Your task to perform on an android device: Open internet settings Image 0: 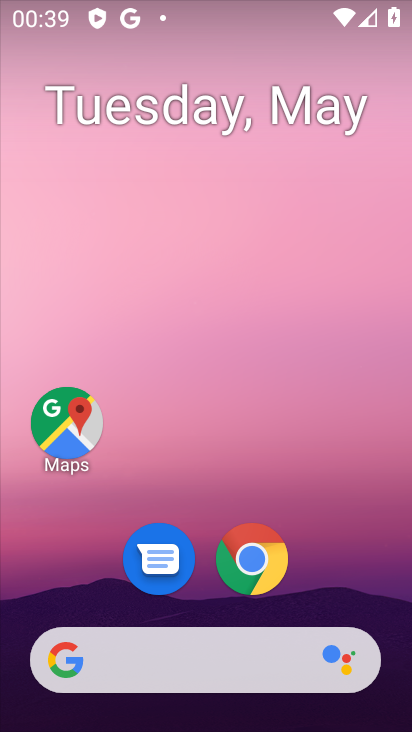
Step 0: drag from (312, 449) to (265, 19)
Your task to perform on an android device: Open internet settings Image 1: 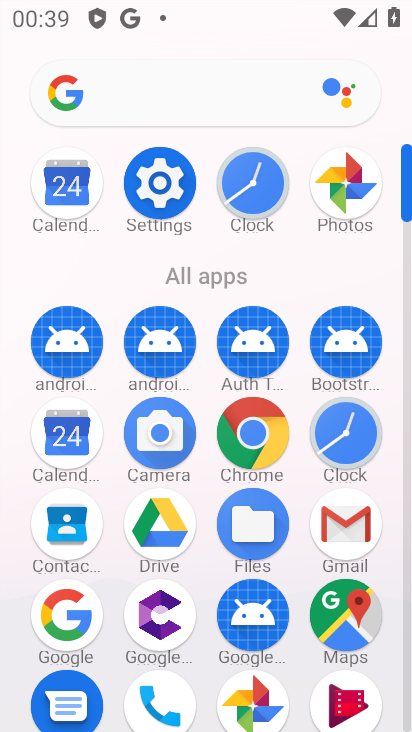
Step 1: click (164, 205)
Your task to perform on an android device: Open internet settings Image 2: 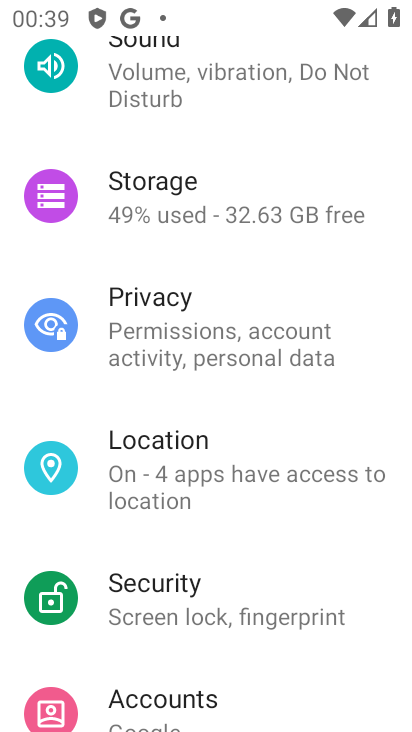
Step 2: drag from (220, 223) to (193, 626)
Your task to perform on an android device: Open internet settings Image 3: 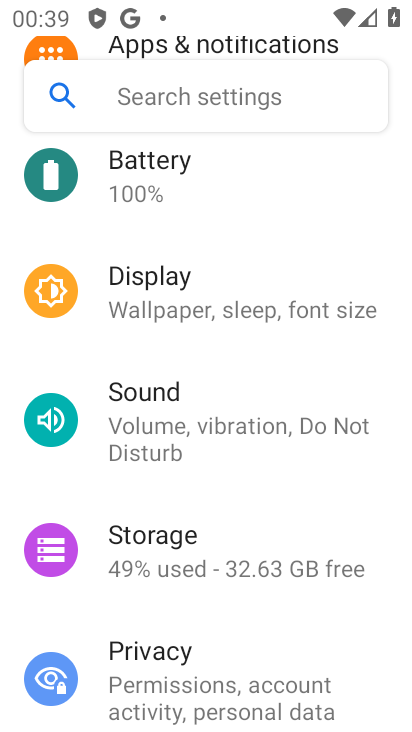
Step 3: drag from (175, 217) to (182, 603)
Your task to perform on an android device: Open internet settings Image 4: 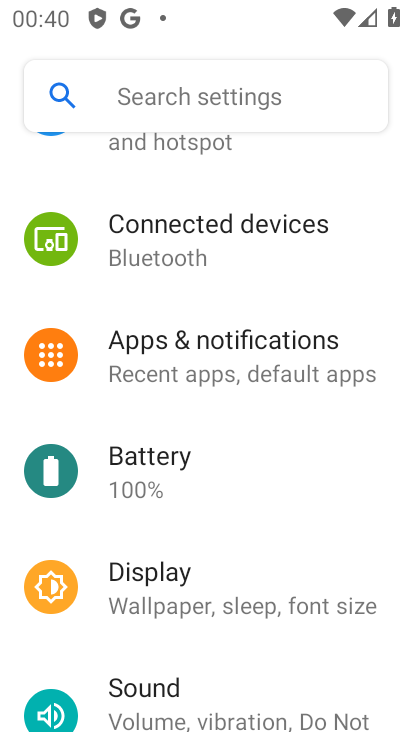
Step 4: drag from (172, 238) to (182, 679)
Your task to perform on an android device: Open internet settings Image 5: 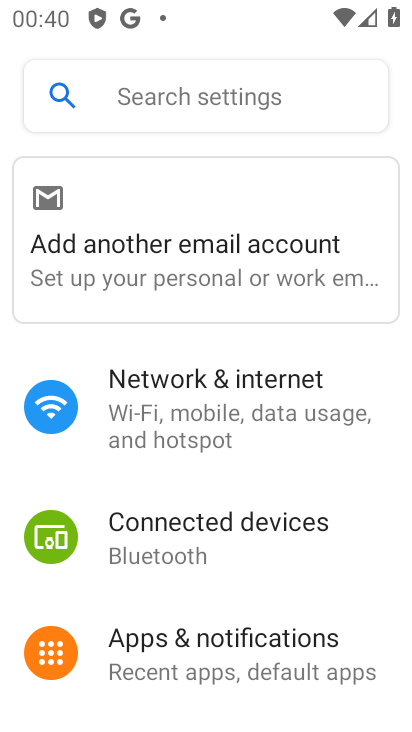
Step 5: click (207, 415)
Your task to perform on an android device: Open internet settings Image 6: 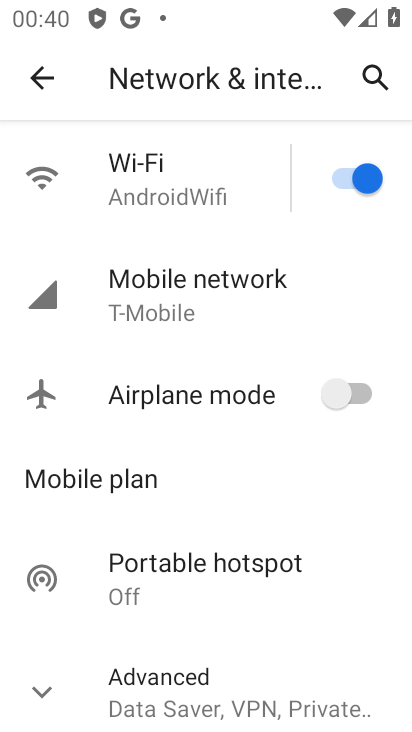
Step 6: task complete